Your task to perform on an android device: see sites visited before in the chrome app Image 0: 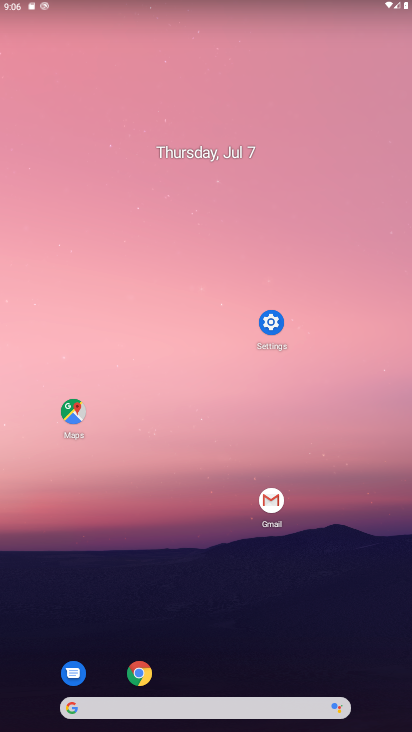
Step 0: click (134, 663)
Your task to perform on an android device: see sites visited before in the chrome app Image 1: 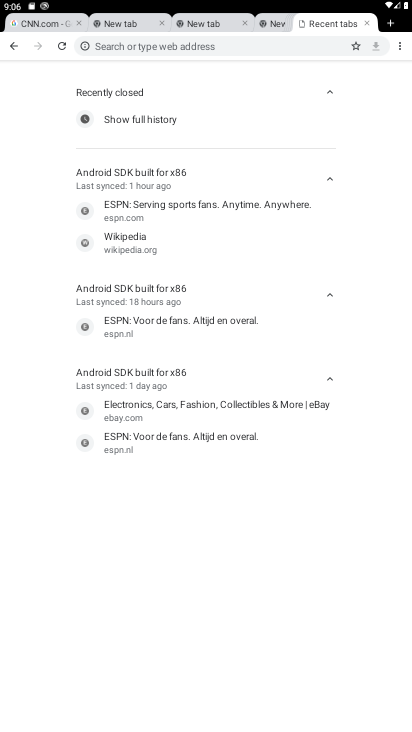
Step 1: click (401, 45)
Your task to perform on an android device: see sites visited before in the chrome app Image 2: 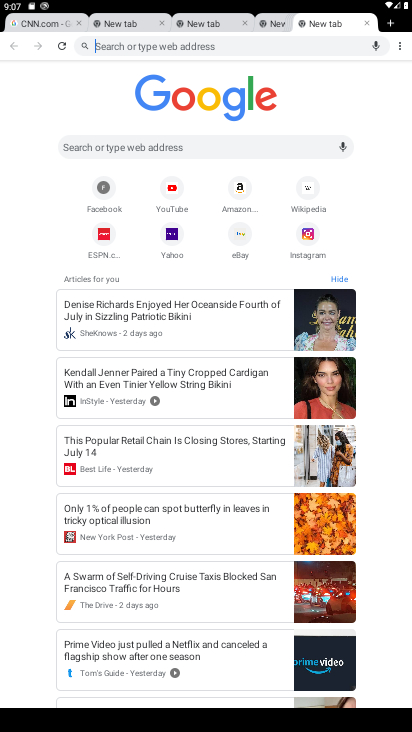
Step 2: click (401, 48)
Your task to perform on an android device: see sites visited before in the chrome app Image 3: 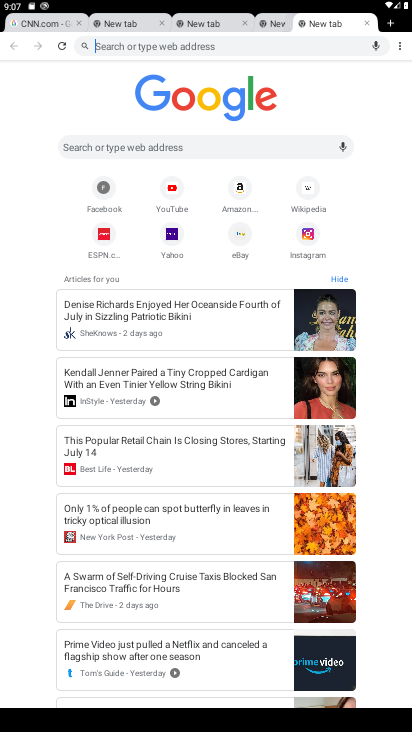
Step 3: click (403, 45)
Your task to perform on an android device: see sites visited before in the chrome app Image 4: 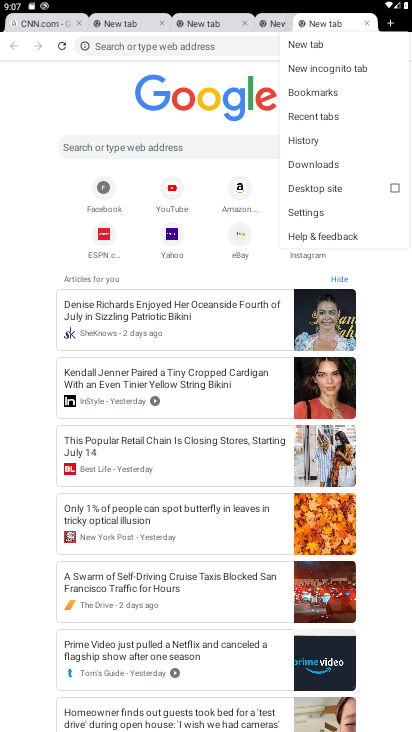
Step 4: click (318, 110)
Your task to perform on an android device: see sites visited before in the chrome app Image 5: 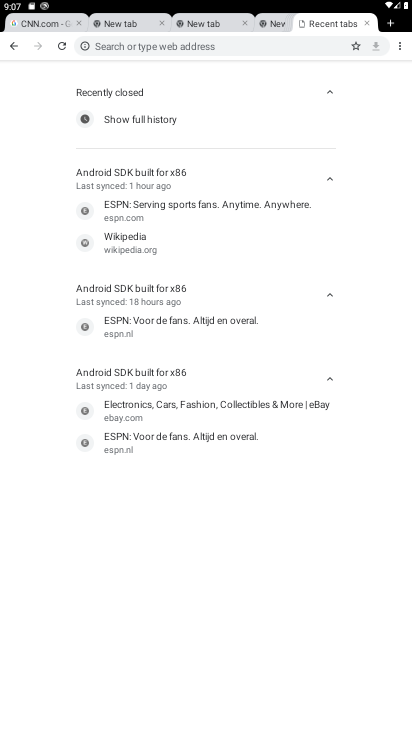
Step 5: task complete